Your task to perform on an android device: empty trash in google photos Image 0: 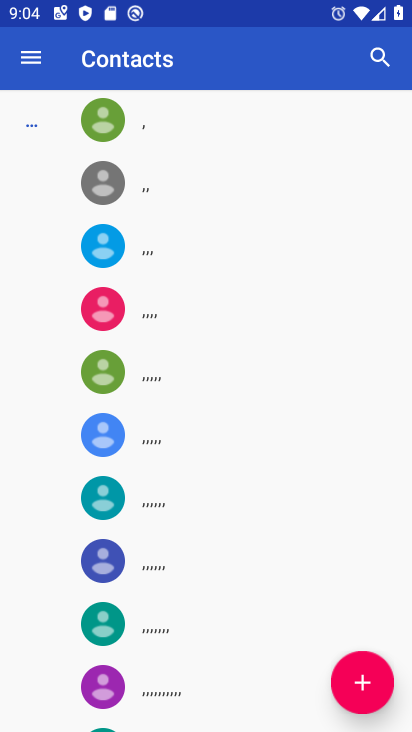
Step 0: press home button
Your task to perform on an android device: empty trash in google photos Image 1: 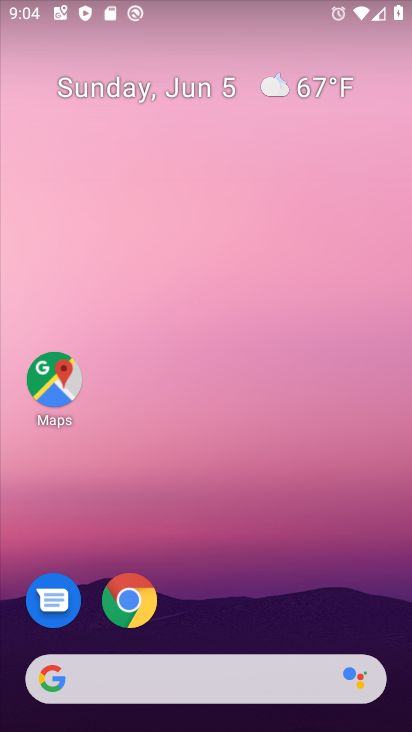
Step 1: drag from (404, 674) to (261, 3)
Your task to perform on an android device: empty trash in google photos Image 2: 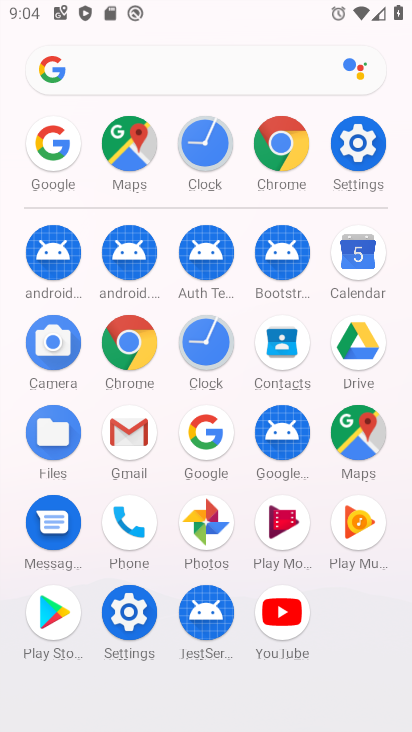
Step 2: click (207, 509)
Your task to perform on an android device: empty trash in google photos Image 3: 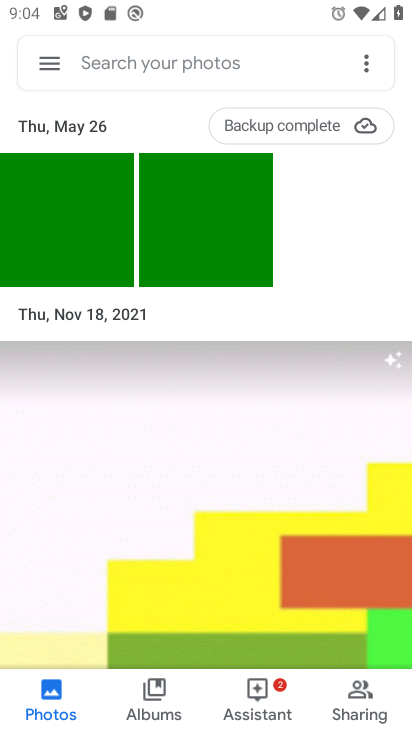
Step 3: click (41, 43)
Your task to perform on an android device: empty trash in google photos Image 4: 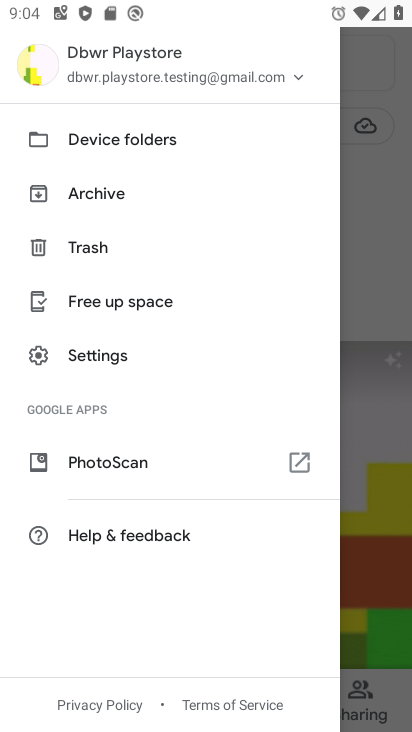
Step 4: click (126, 246)
Your task to perform on an android device: empty trash in google photos Image 5: 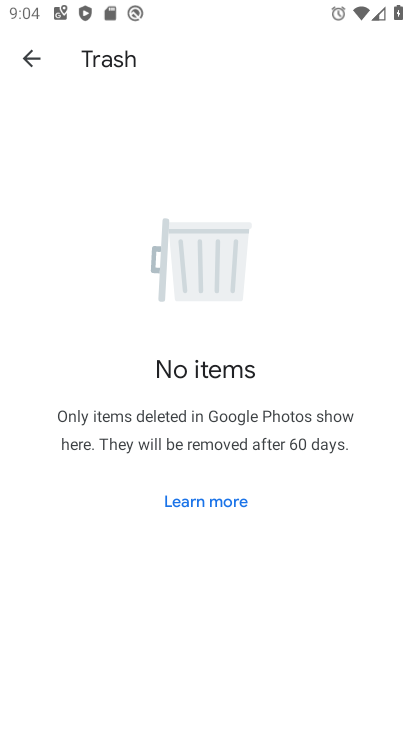
Step 5: task complete